Your task to perform on an android device: Check the weather Image 0: 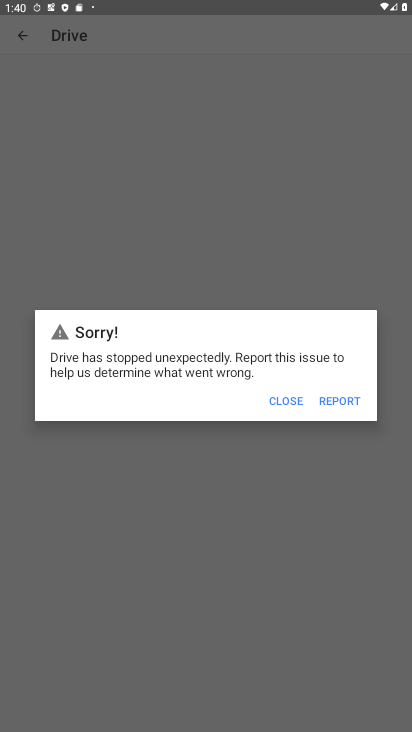
Step 0: press home button
Your task to perform on an android device: Check the weather Image 1: 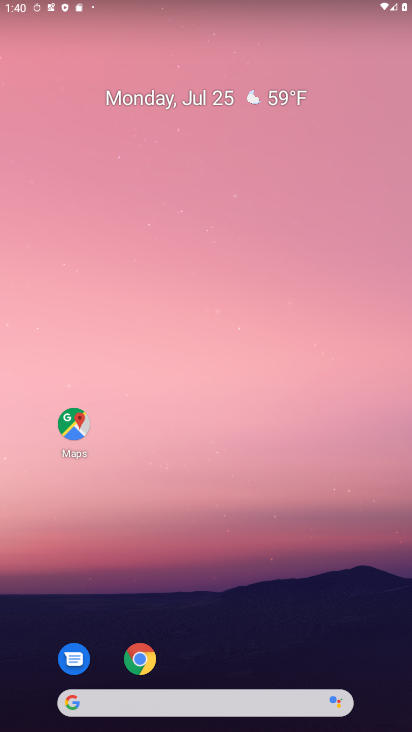
Step 1: click (276, 107)
Your task to perform on an android device: Check the weather Image 2: 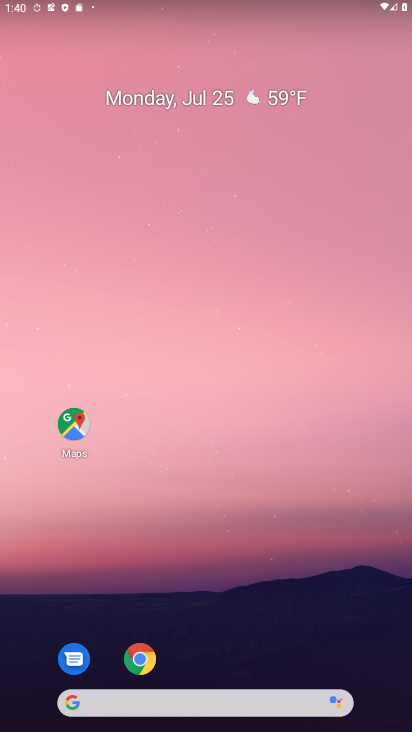
Step 2: click (279, 92)
Your task to perform on an android device: Check the weather Image 3: 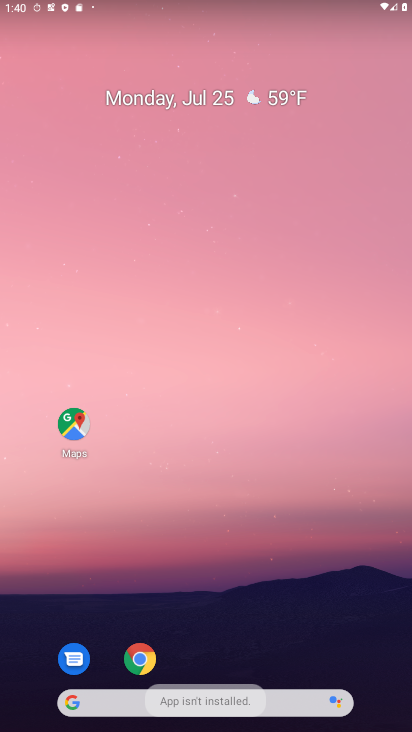
Step 3: click (282, 100)
Your task to perform on an android device: Check the weather Image 4: 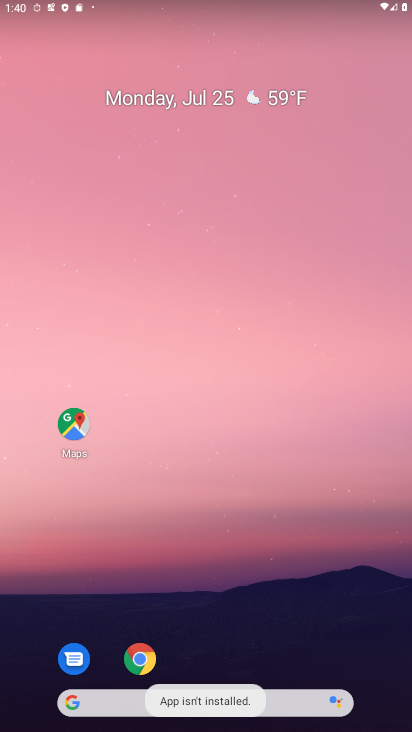
Step 4: click (127, 694)
Your task to perform on an android device: Check the weather Image 5: 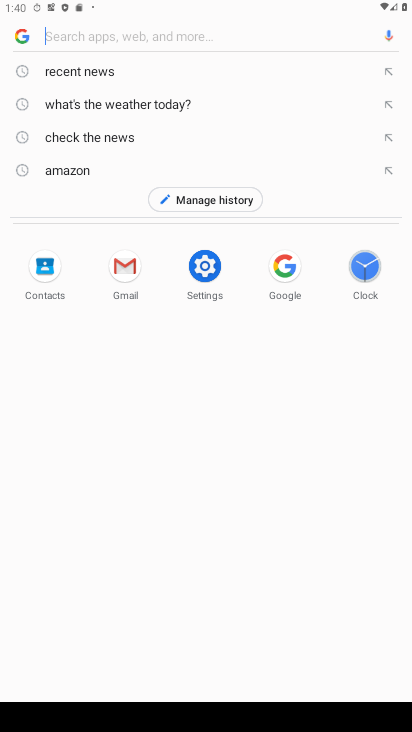
Step 5: type "weather"
Your task to perform on an android device: Check the weather Image 6: 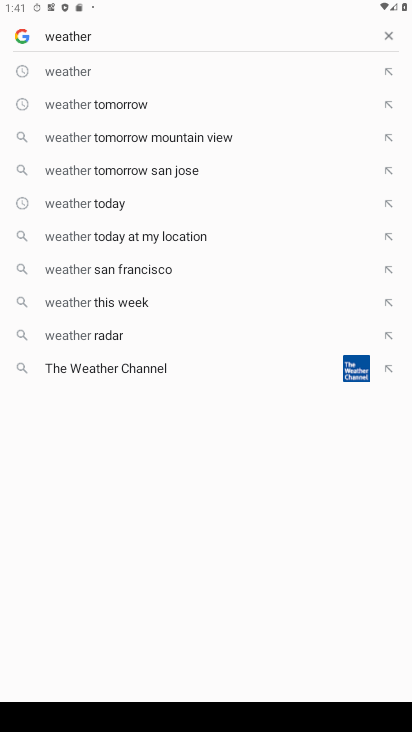
Step 6: click (61, 75)
Your task to perform on an android device: Check the weather Image 7: 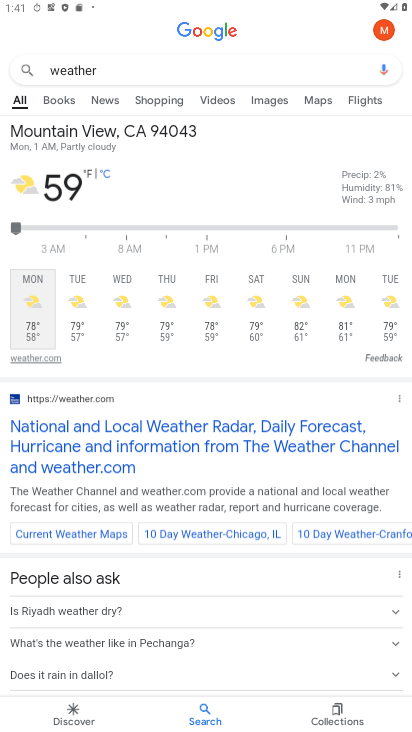
Step 7: task complete